Your task to perform on an android device: Show me popular games on the Play Store Image 0: 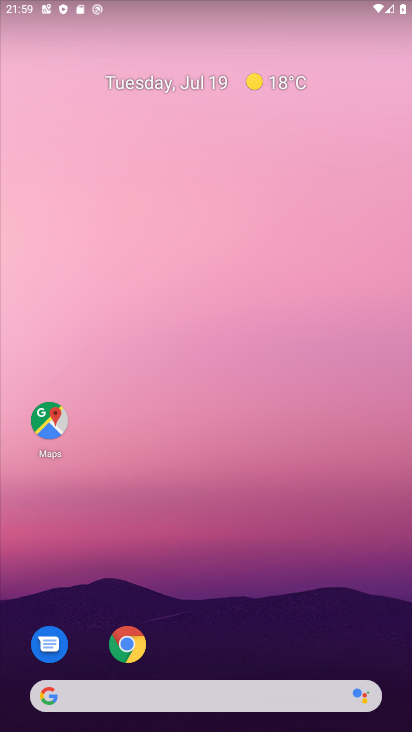
Step 0: drag from (176, 717) to (164, 197)
Your task to perform on an android device: Show me popular games on the Play Store Image 1: 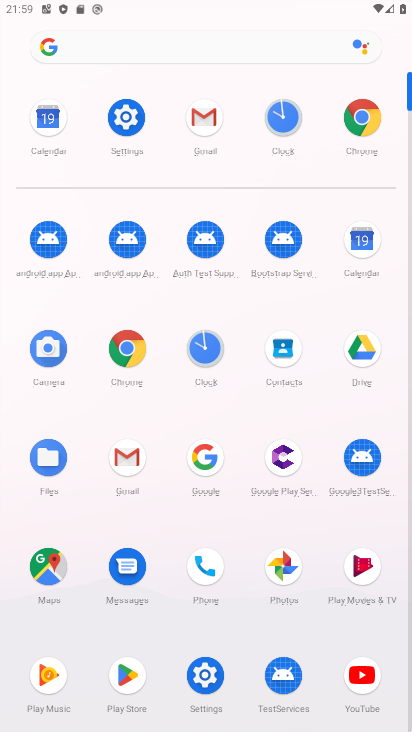
Step 1: click (123, 696)
Your task to perform on an android device: Show me popular games on the Play Store Image 2: 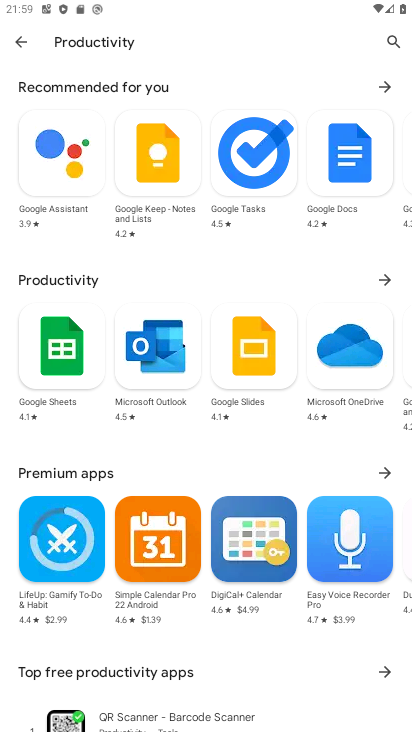
Step 2: click (21, 46)
Your task to perform on an android device: Show me popular games on the Play Store Image 3: 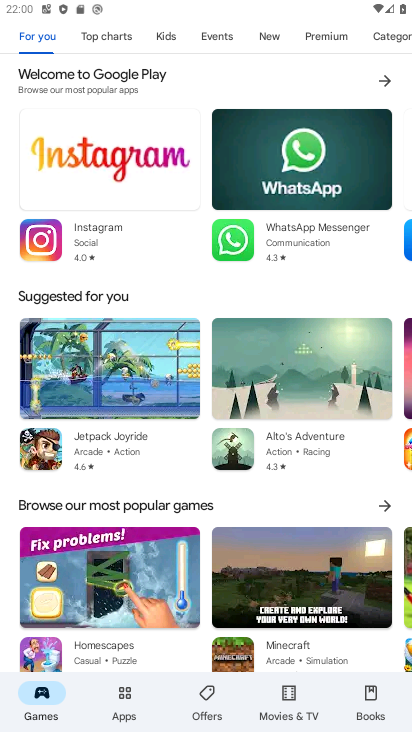
Step 3: click (387, 503)
Your task to perform on an android device: Show me popular games on the Play Store Image 4: 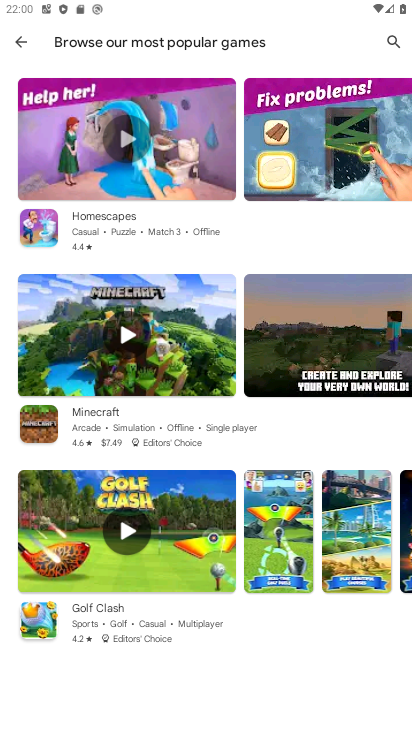
Step 4: task complete